Your task to perform on an android device: What's the weather like in Mumbai? Image 0: 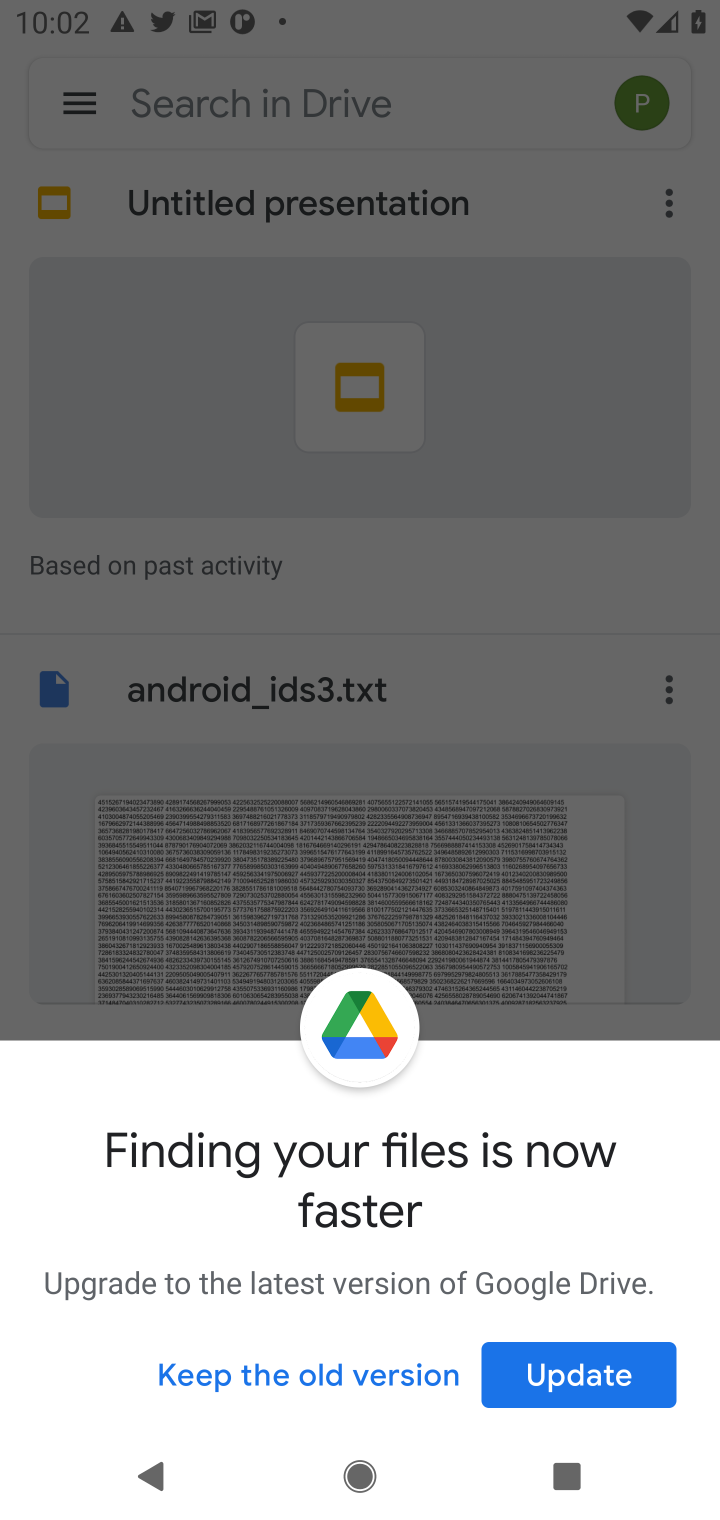
Step 0: press home button
Your task to perform on an android device: What's the weather like in Mumbai? Image 1: 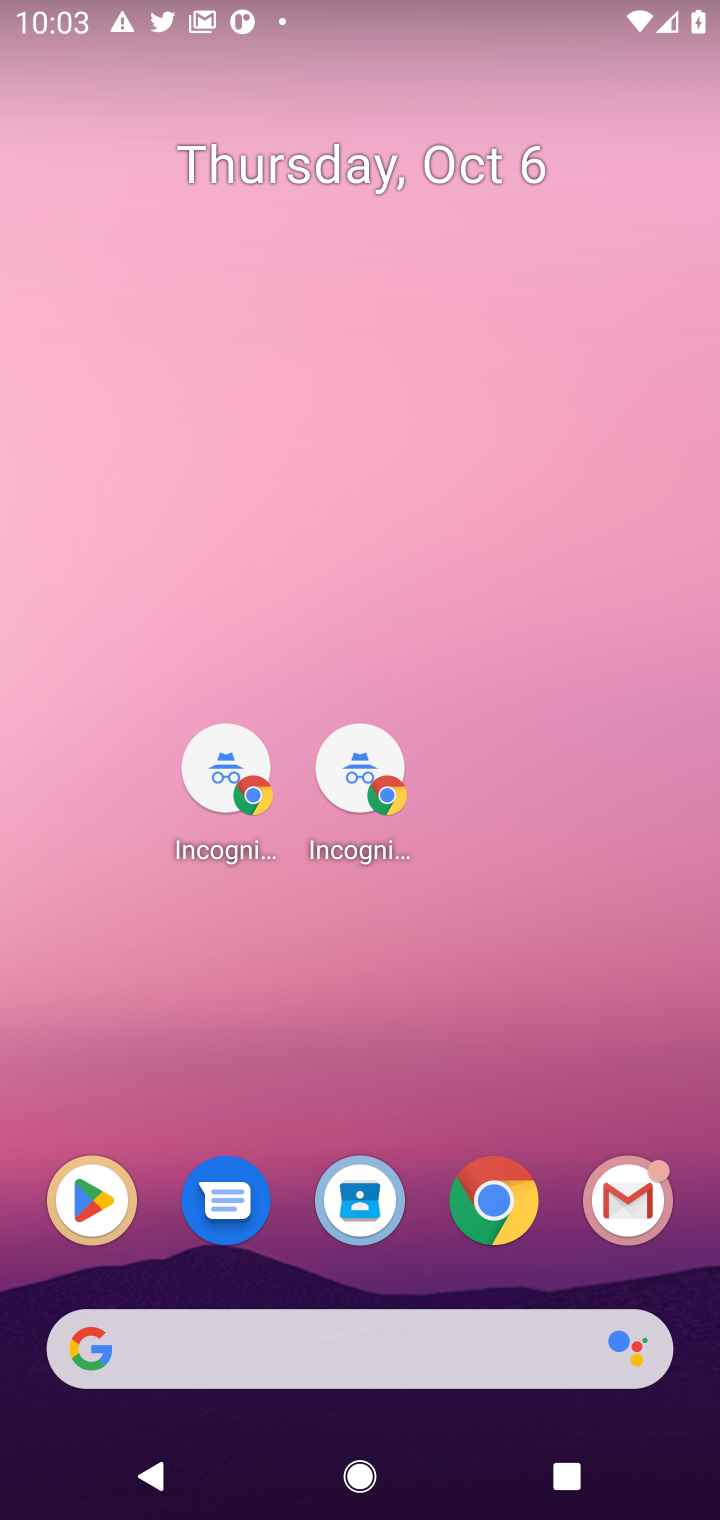
Step 1: click (489, 1214)
Your task to perform on an android device: What's the weather like in Mumbai? Image 2: 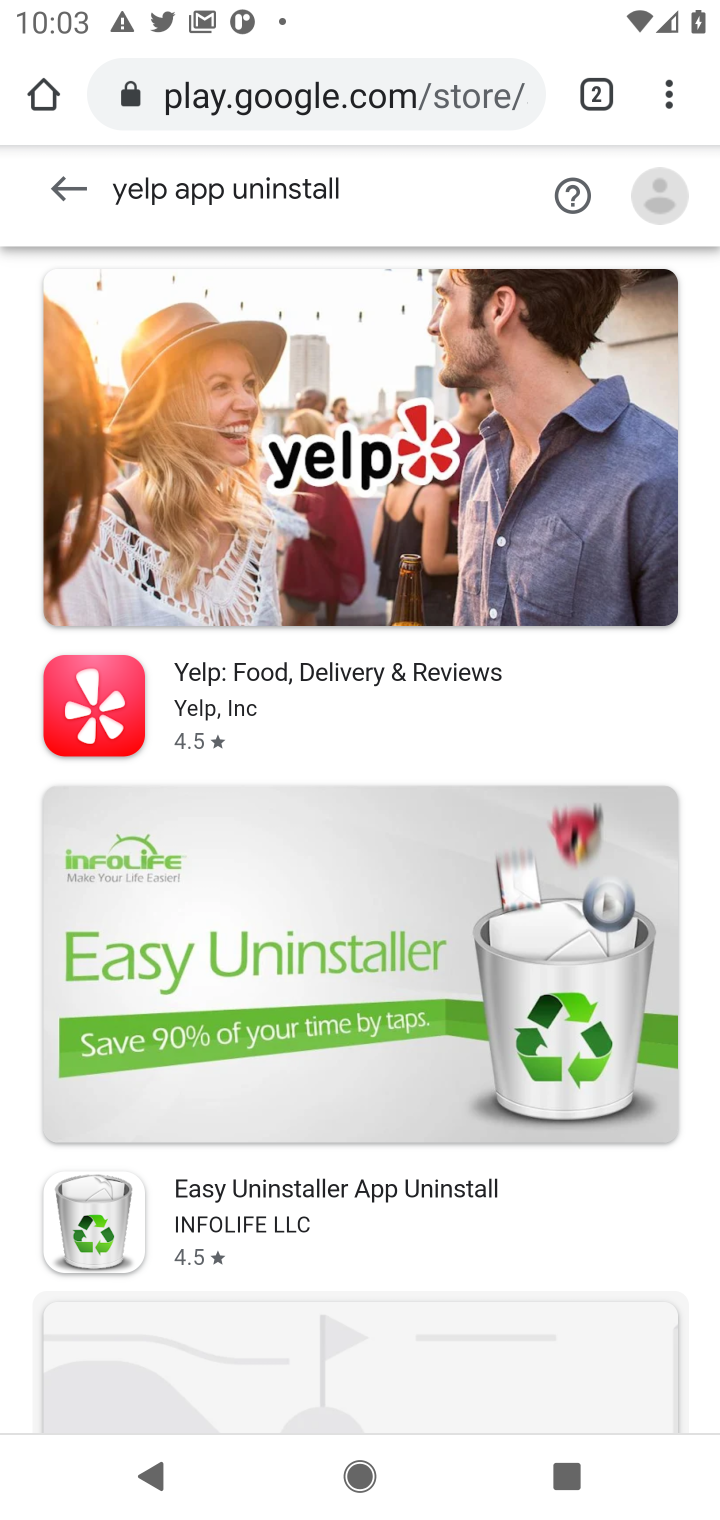
Step 2: click (298, 99)
Your task to perform on an android device: What's the weather like in Mumbai? Image 3: 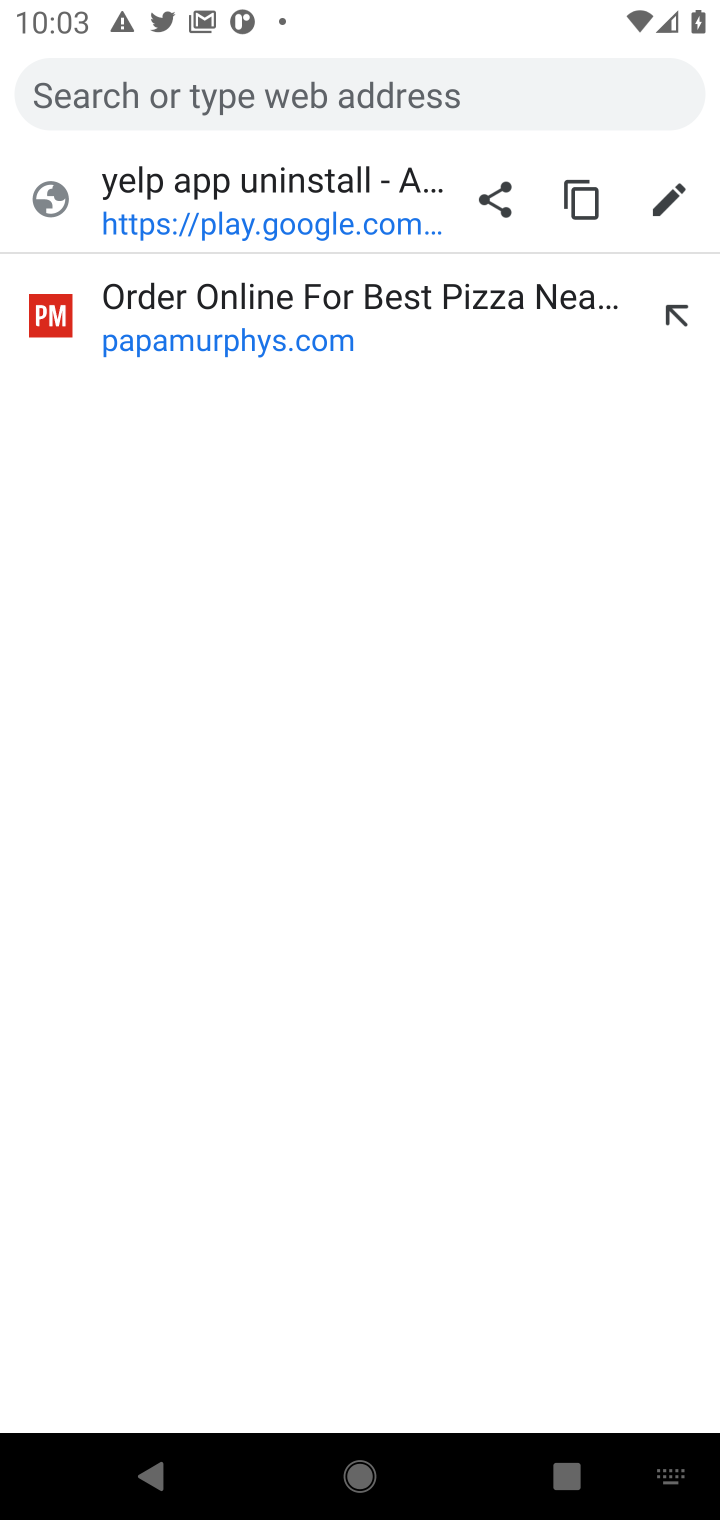
Step 3: type "whats the weather like in mumbai"
Your task to perform on an android device: What's the weather like in Mumbai? Image 4: 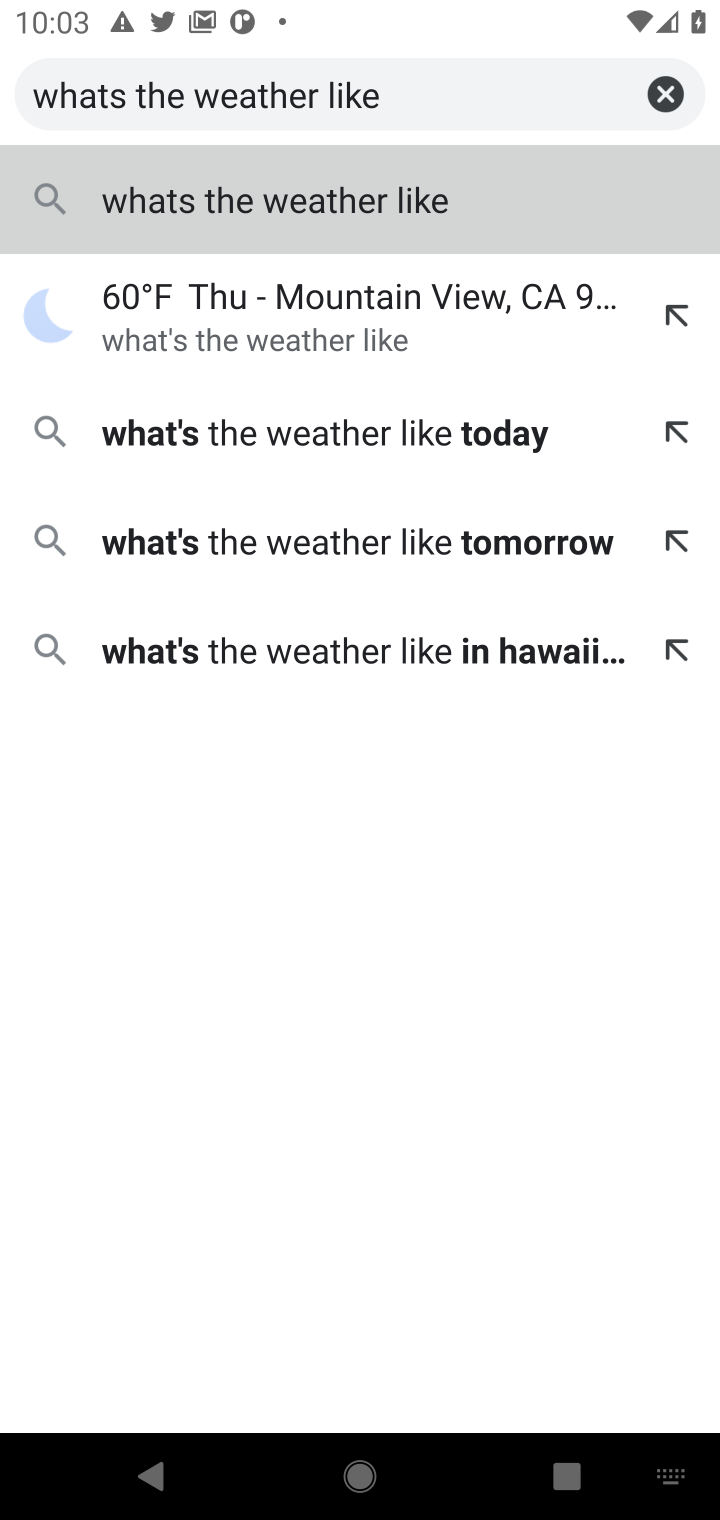
Step 4: click (340, 437)
Your task to perform on an android device: What's the weather like in Mumbai? Image 5: 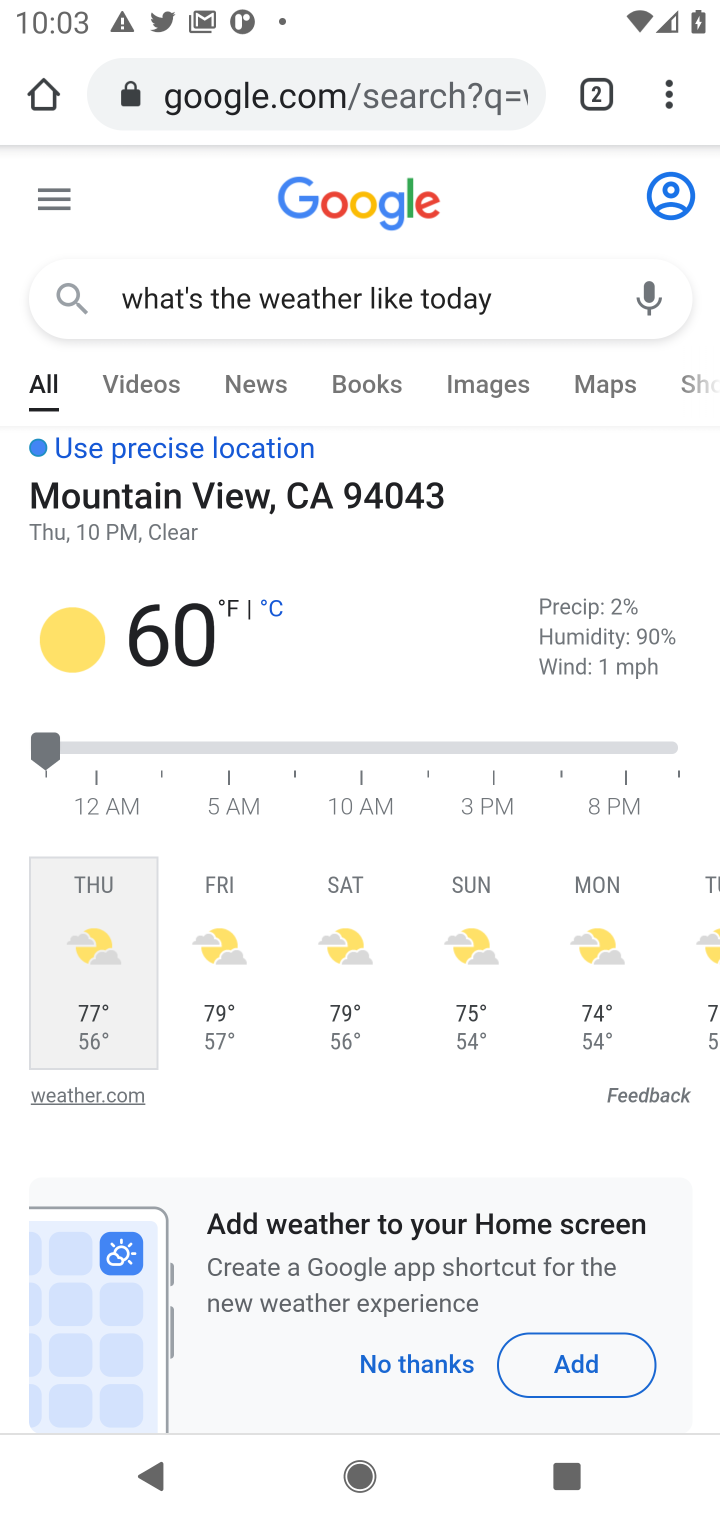
Step 5: click (410, 88)
Your task to perform on an android device: What's the weather like in Mumbai? Image 6: 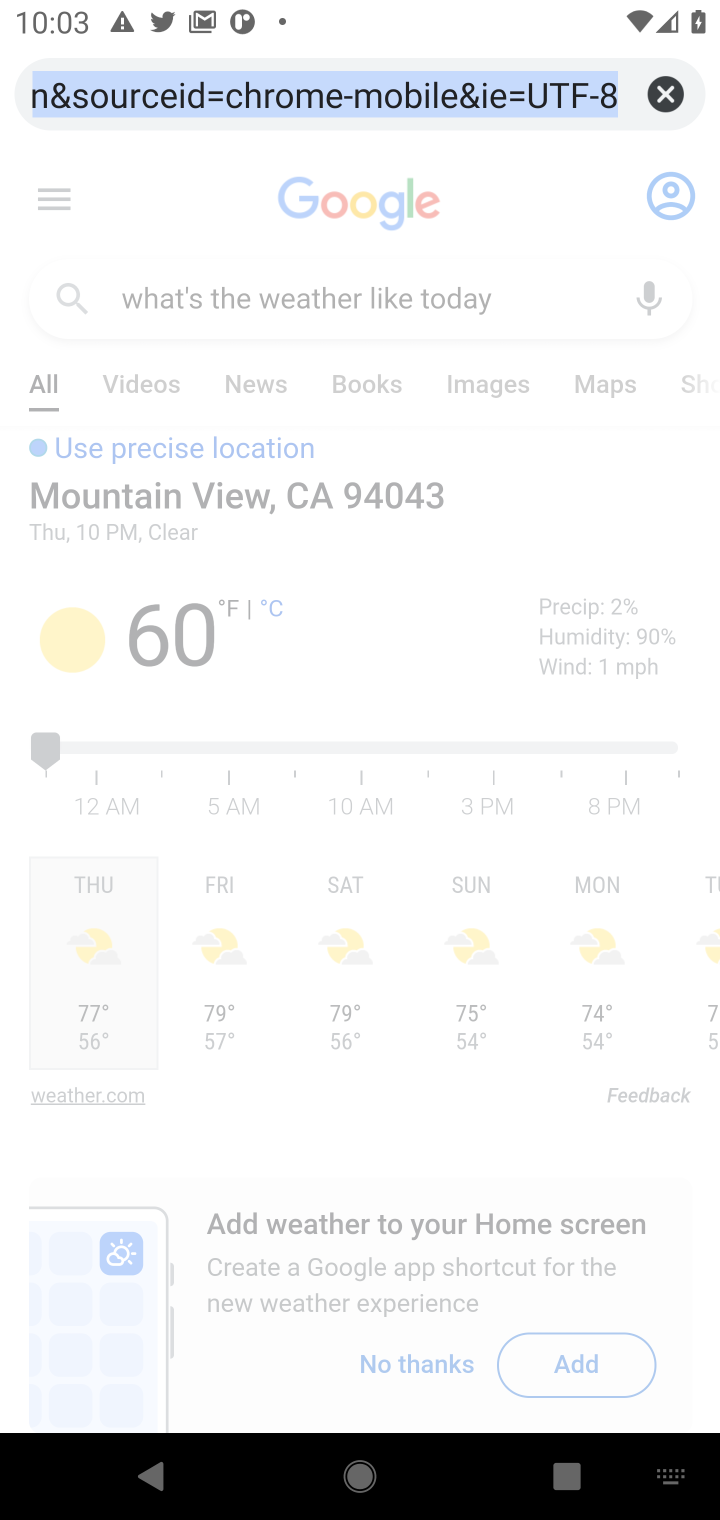
Step 6: click (671, 88)
Your task to perform on an android device: What's the weather like in Mumbai? Image 7: 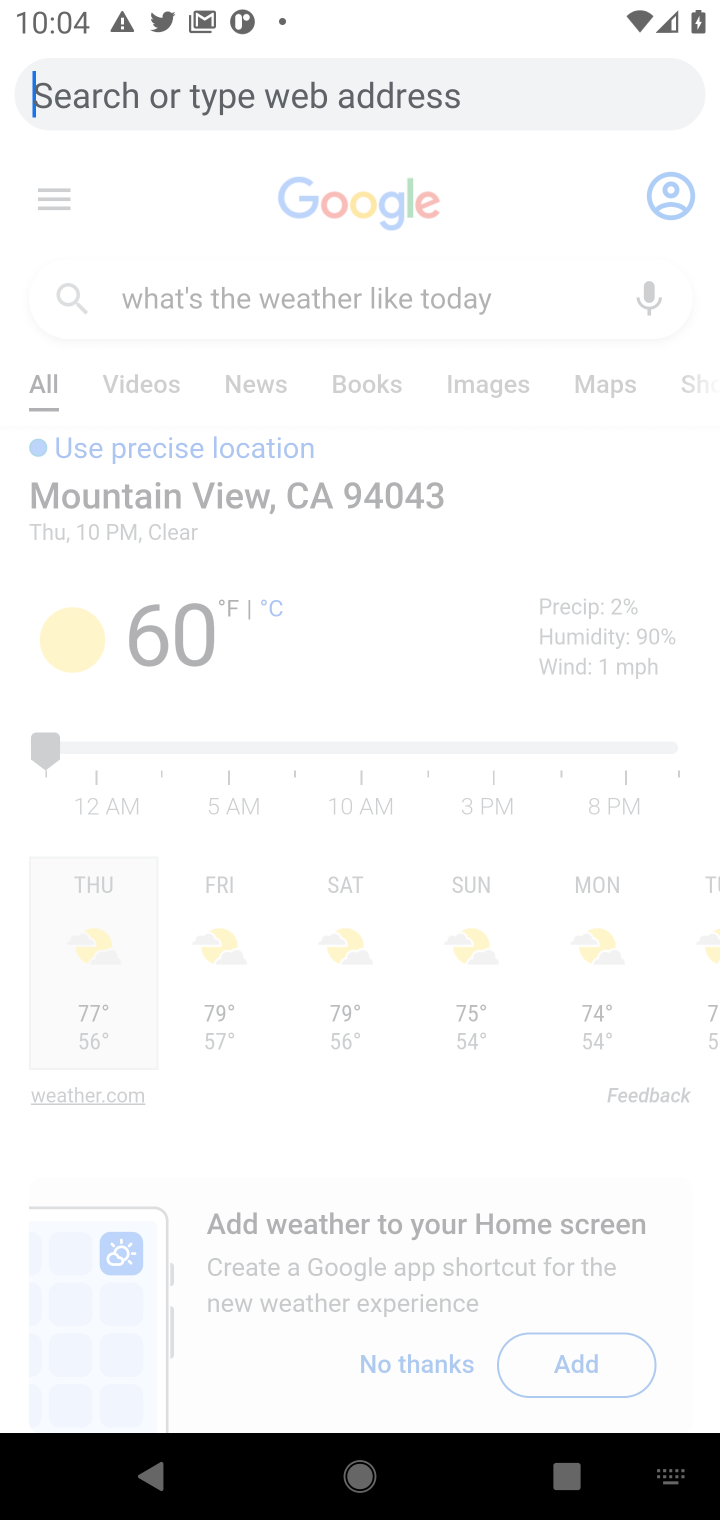
Step 7: type "whats the weather like in mumbai"
Your task to perform on an android device: What's the weather like in Mumbai? Image 8: 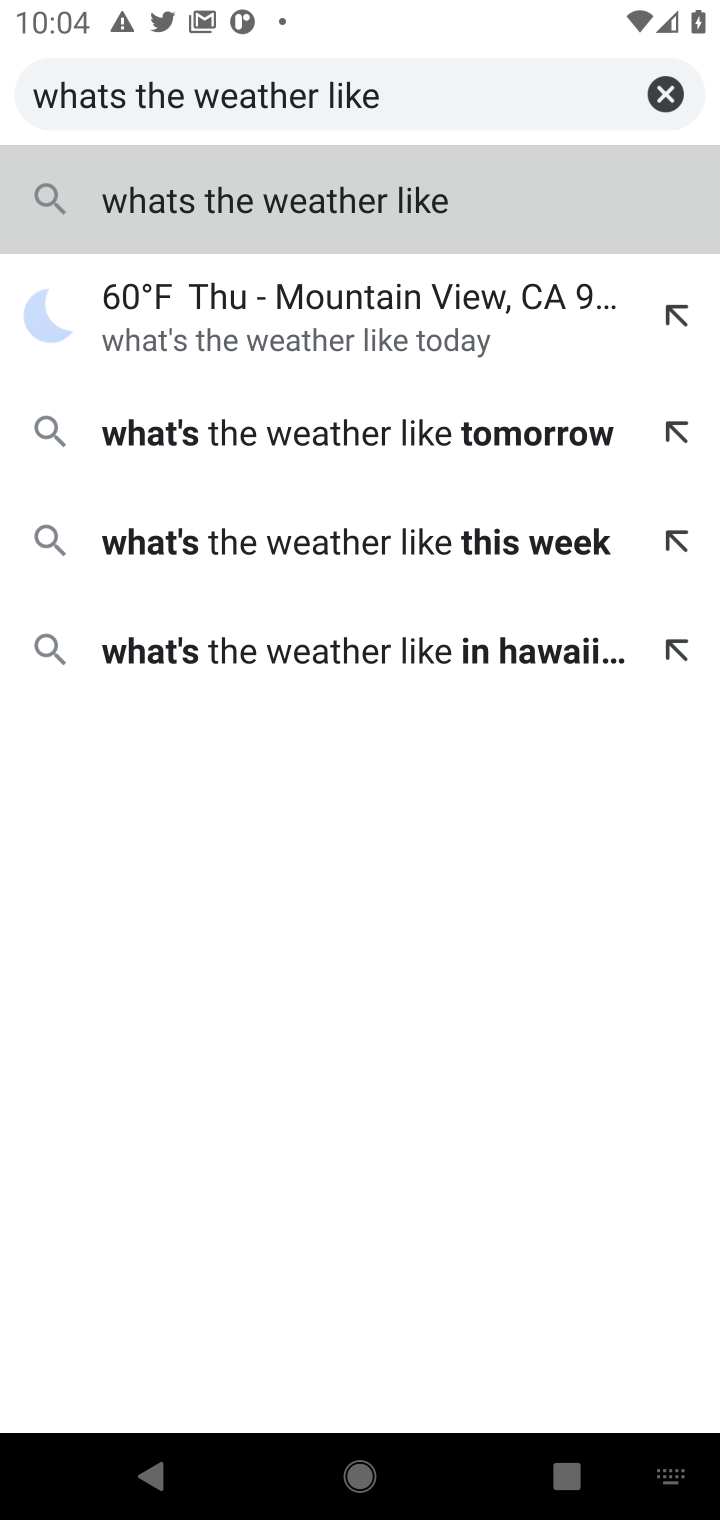
Step 8: type ""
Your task to perform on an android device: What's the weather like in Mumbai? Image 9: 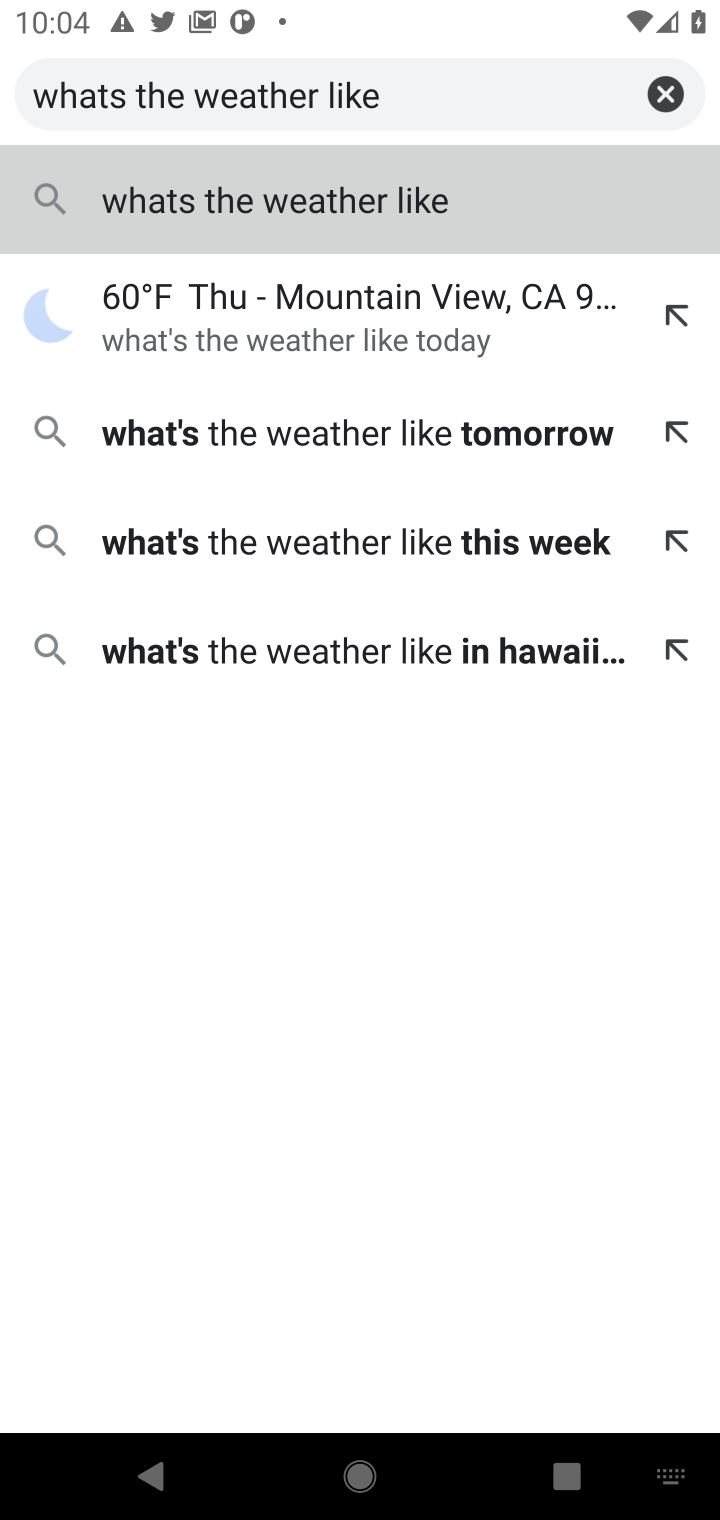
Step 9: type "whats the weather in mumbai"
Your task to perform on an android device: What's the weather like in Mumbai? Image 10: 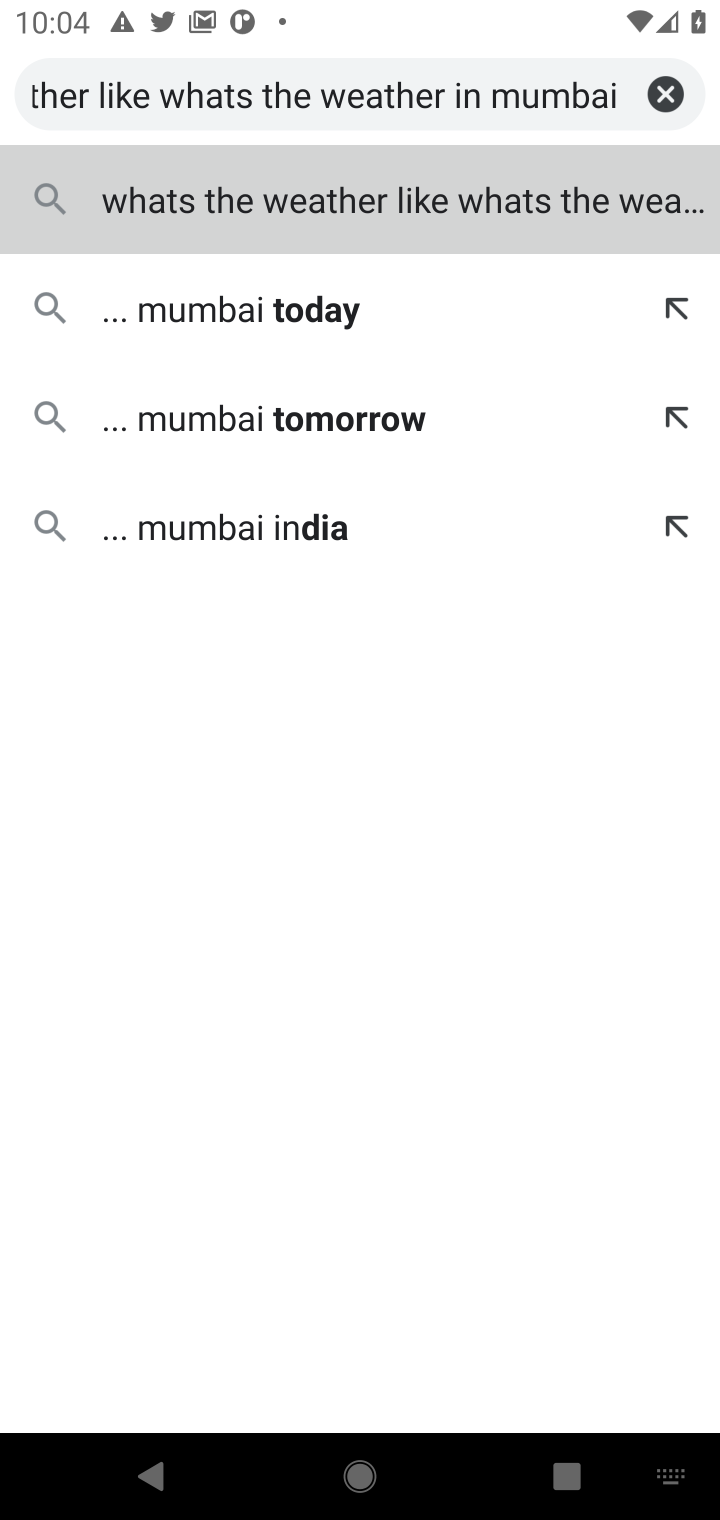
Step 10: type ""
Your task to perform on an android device: What's the weather like in Mumbai? Image 11: 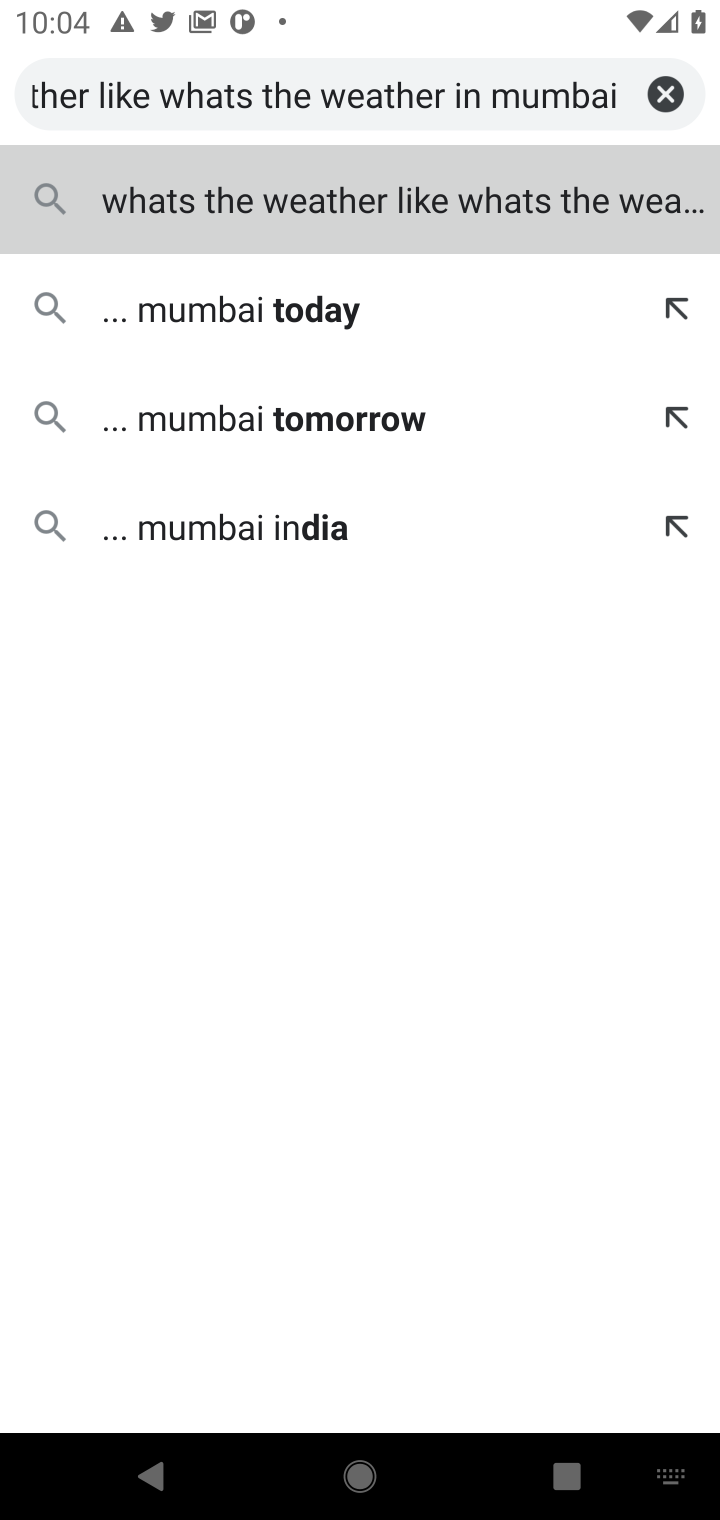
Step 11: click (333, 638)
Your task to perform on an android device: What's the weather like in Mumbai? Image 12: 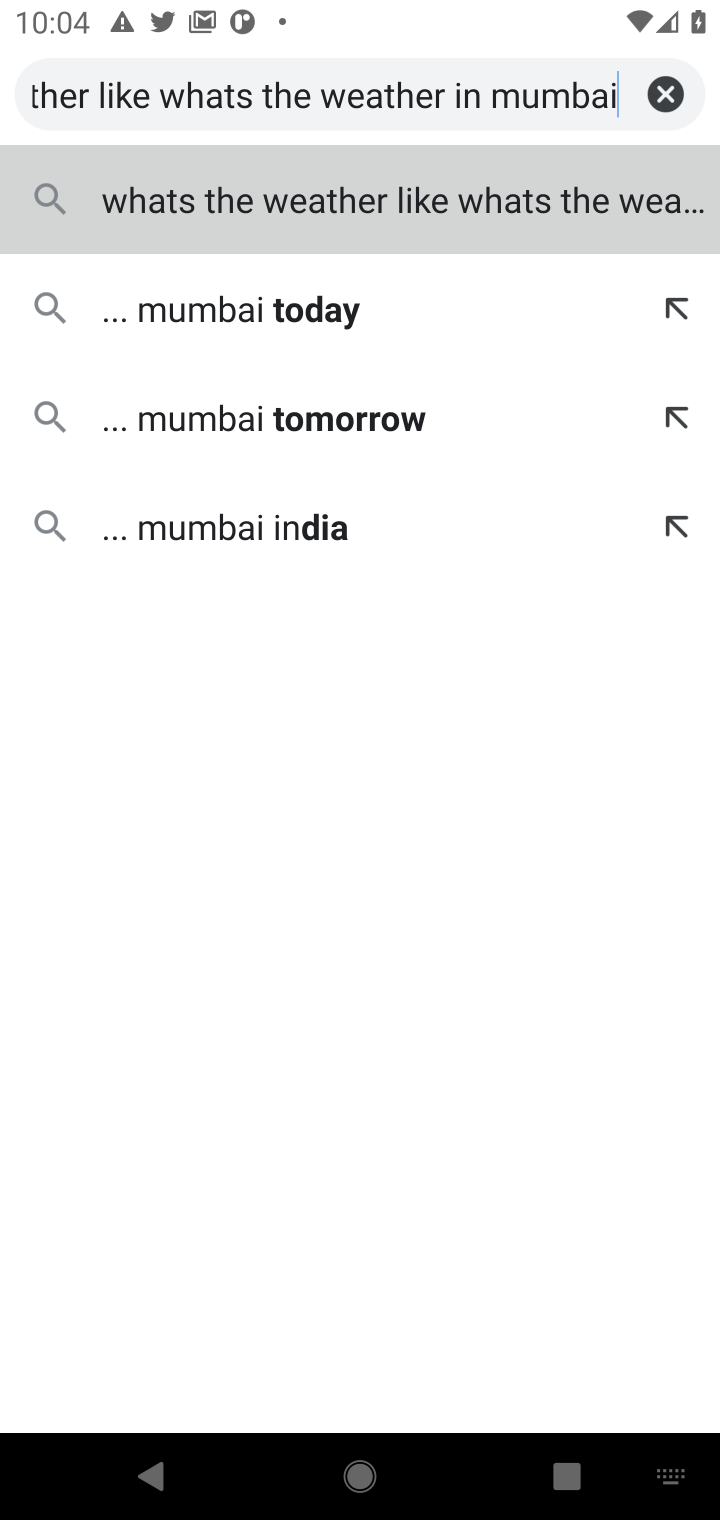
Step 12: click (243, 313)
Your task to perform on an android device: What's the weather like in Mumbai? Image 13: 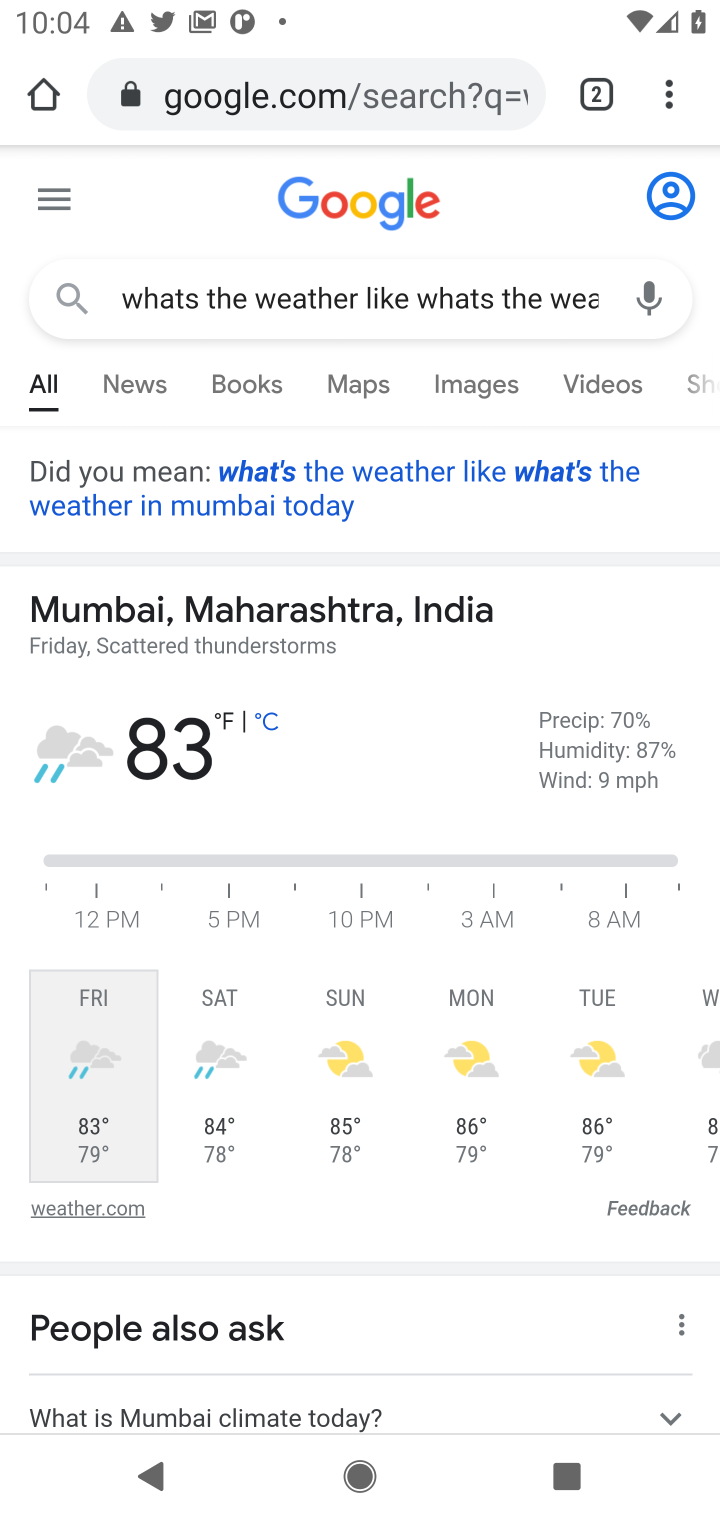
Step 13: task complete